Your task to perform on an android device: What's the weather going to be this weekend? Image 0: 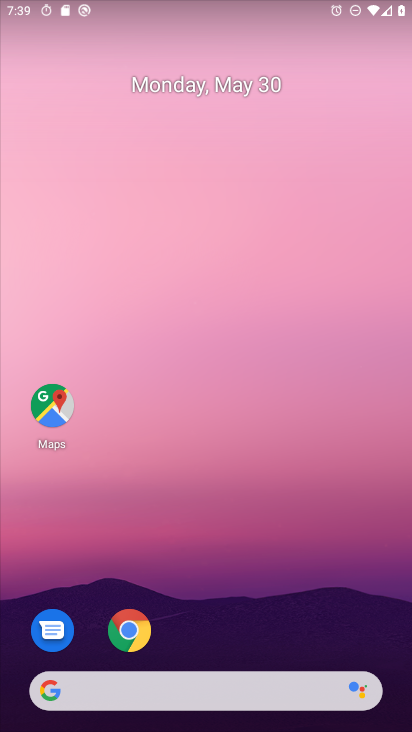
Step 0: drag from (313, 634) to (293, 58)
Your task to perform on an android device: What's the weather going to be this weekend? Image 1: 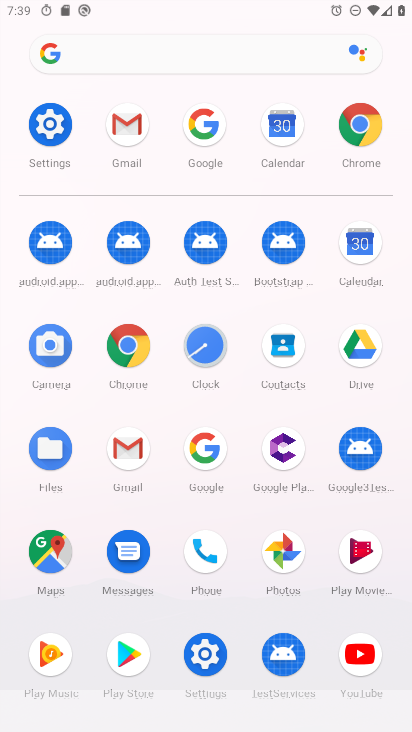
Step 1: click (191, 142)
Your task to perform on an android device: What's the weather going to be this weekend? Image 2: 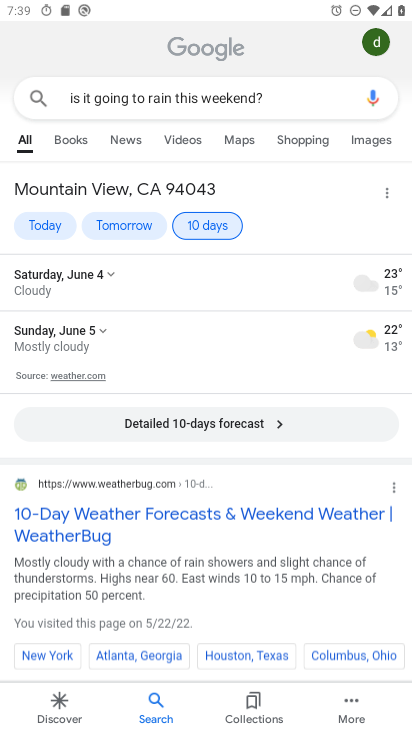
Step 2: press back button
Your task to perform on an android device: What's the weather going to be this weekend? Image 3: 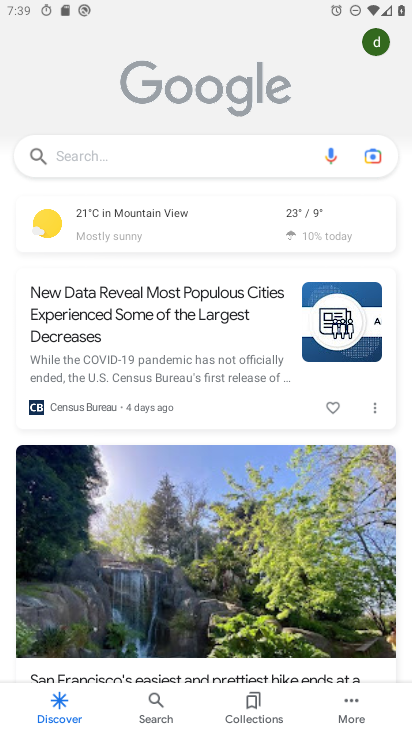
Step 3: click (229, 145)
Your task to perform on an android device: What's the weather going to be this weekend? Image 4: 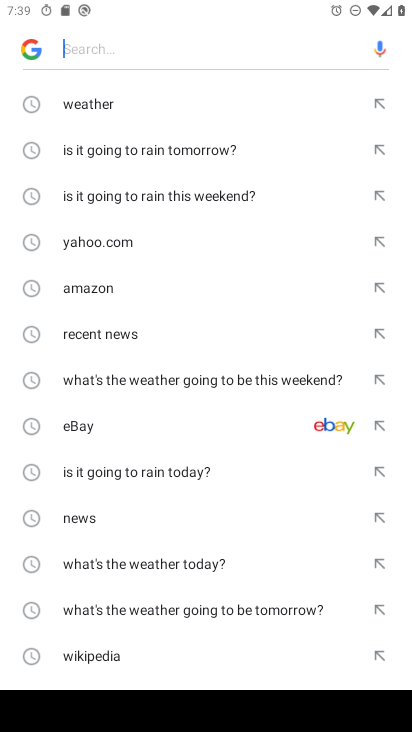
Step 4: click (244, 392)
Your task to perform on an android device: What's the weather going to be this weekend? Image 5: 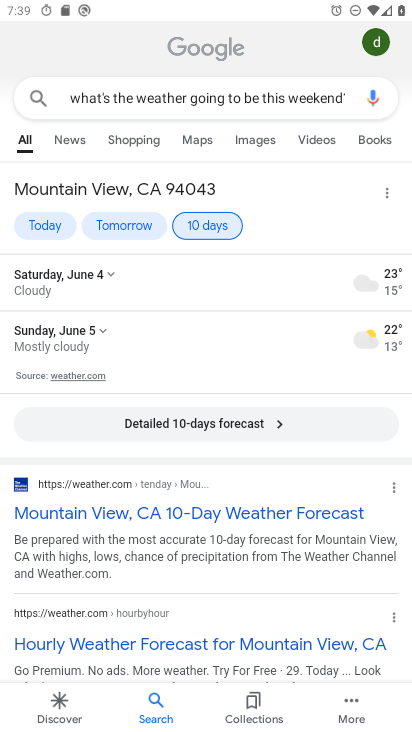
Step 5: task complete